Your task to perform on an android device: clear all cookies in the chrome app Image 0: 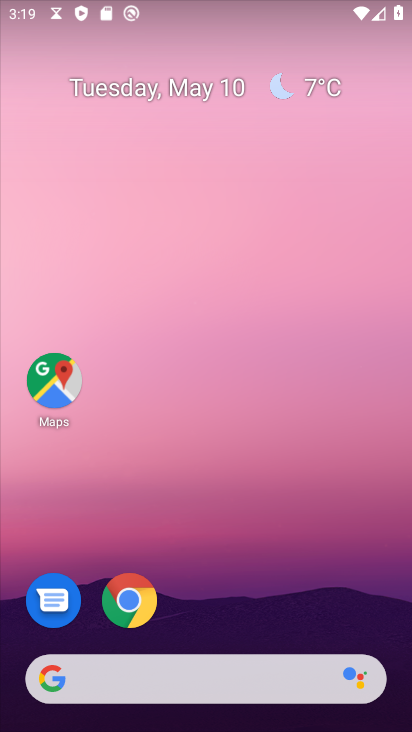
Step 0: click (129, 596)
Your task to perform on an android device: clear all cookies in the chrome app Image 1: 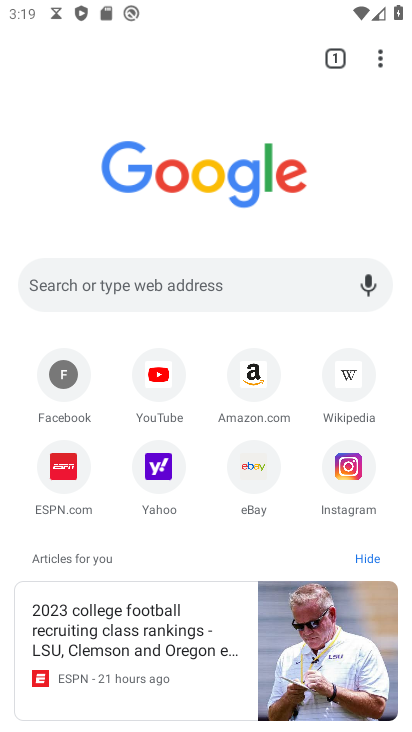
Step 1: click (376, 51)
Your task to perform on an android device: clear all cookies in the chrome app Image 2: 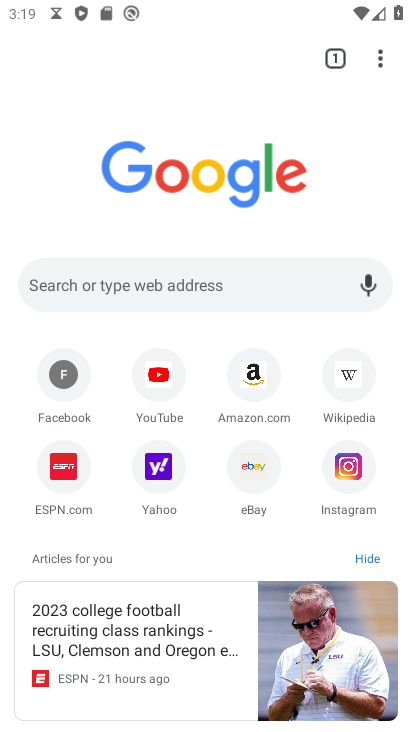
Step 2: click (378, 61)
Your task to perform on an android device: clear all cookies in the chrome app Image 3: 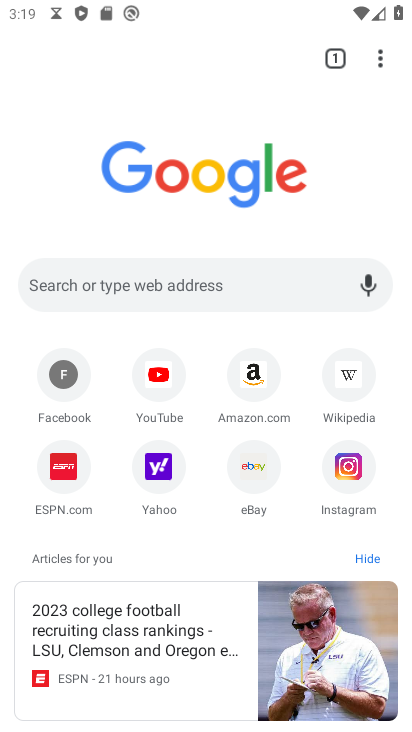
Step 3: click (379, 61)
Your task to perform on an android device: clear all cookies in the chrome app Image 4: 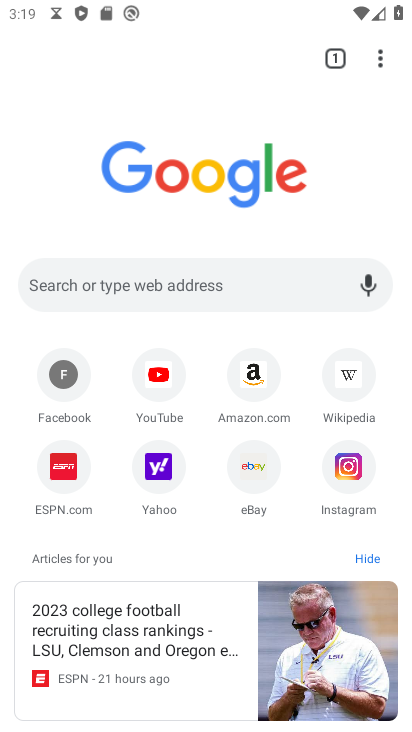
Step 4: click (379, 61)
Your task to perform on an android device: clear all cookies in the chrome app Image 5: 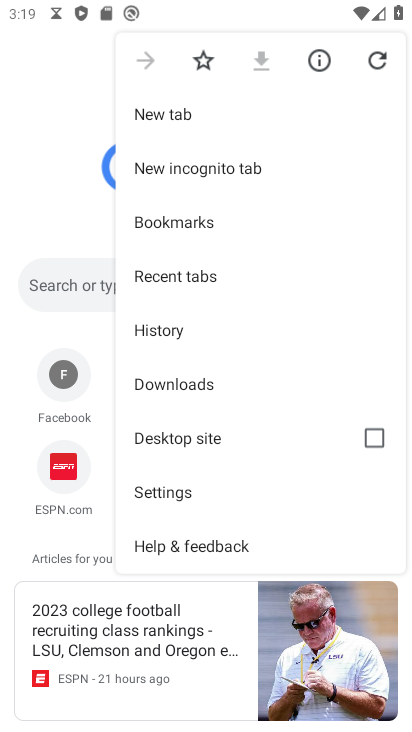
Step 5: click (291, 490)
Your task to perform on an android device: clear all cookies in the chrome app Image 6: 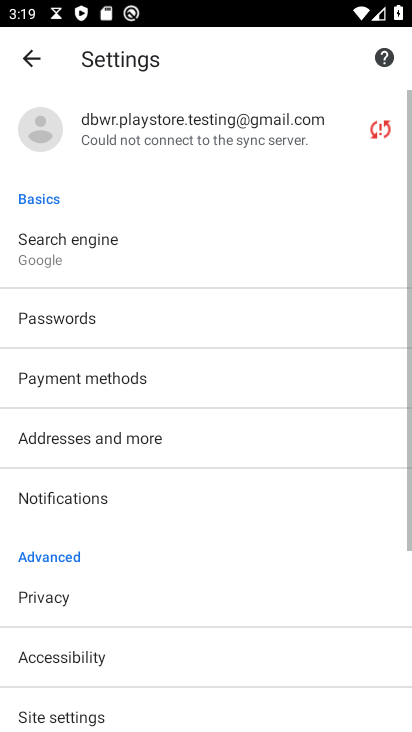
Step 6: drag from (213, 634) to (218, 411)
Your task to perform on an android device: clear all cookies in the chrome app Image 7: 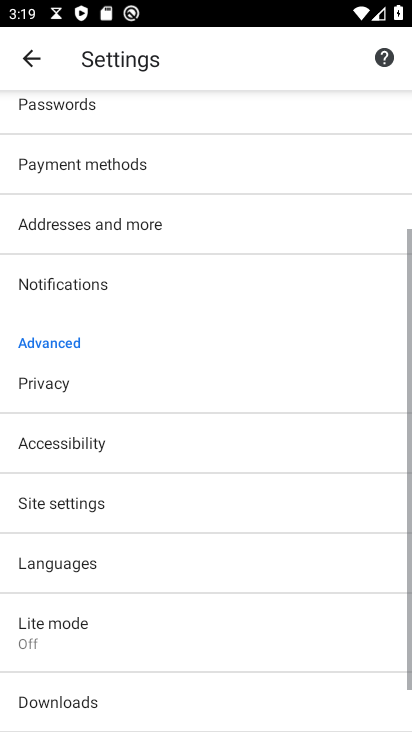
Step 7: drag from (243, 608) to (243, 340)
Your task to perform on an android device: clear all cookies in the chrome app Image 8: 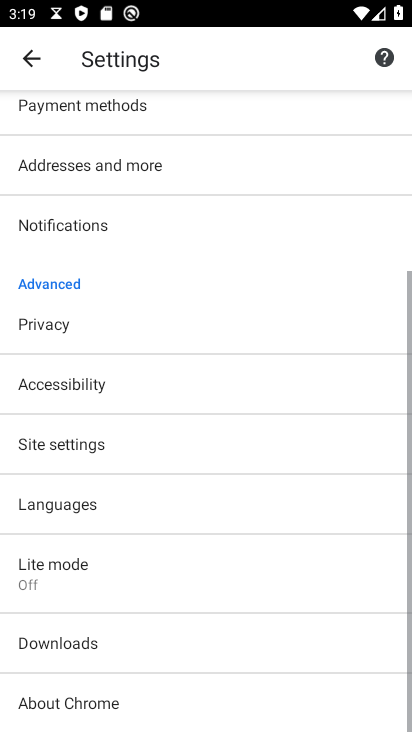
Step 8: click (212, 419)
Your task to perform on an android device: clear all cookies in the chrome app Image 9: 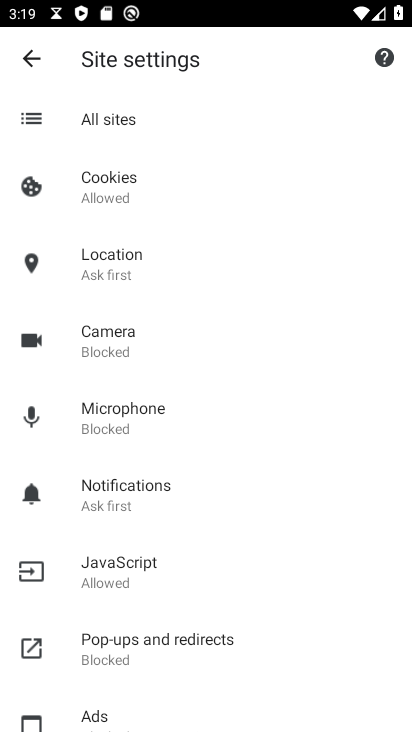
Step 9: click (90, 204)
Your task to perform on an android device: clear all cookies in the chrome app Image 10: 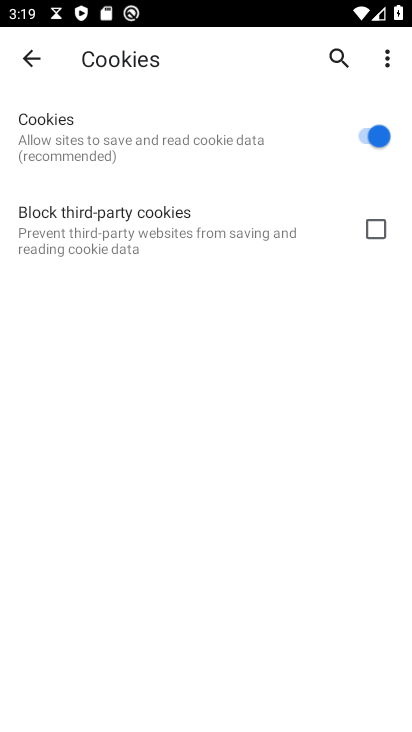
Step 10: click (384, 137)
Your task to perform on an android device: clear all cookies in the chrome app Image 11: 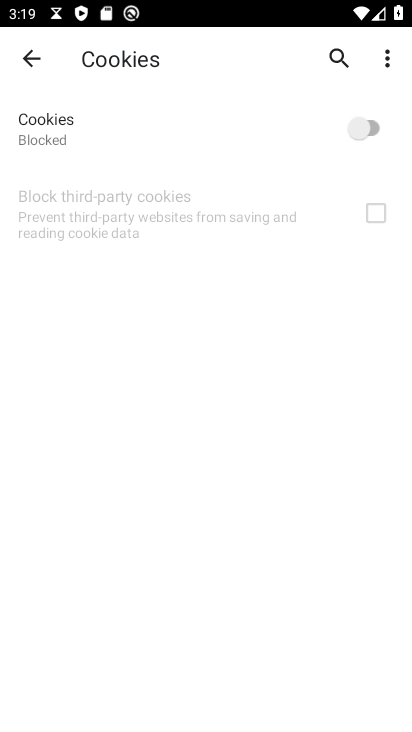
Step 11: click (377, 131)
Your task to perform on an android device: clear all cookies in the chrome app Image 12: 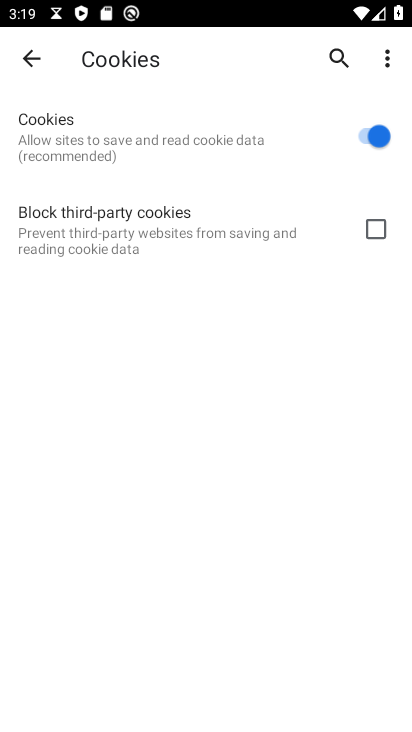
Step 12: click (377, 131)
Your task to perform on an android device: clear all cookies in the chrome app Image 13: 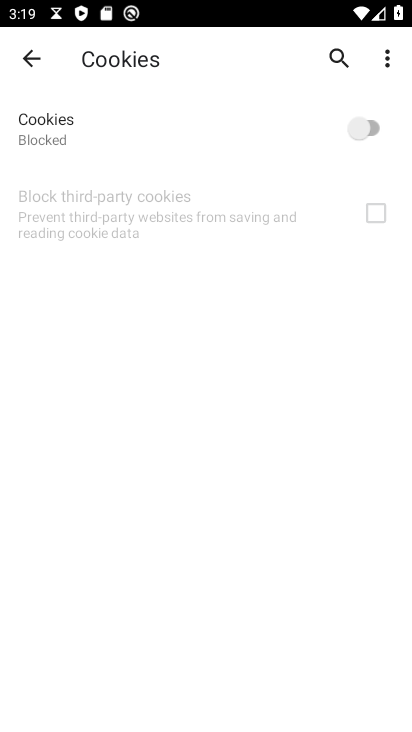
Step 13: task complete